Your task to perform on an android device: turn off location Image 0: 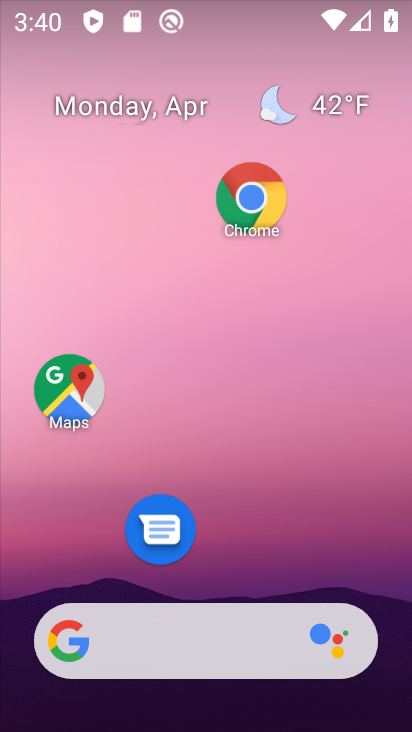
Step 0: drag from (233, 563) to (207, 162)
Your task to perform on an android device: turn off location Image 1: 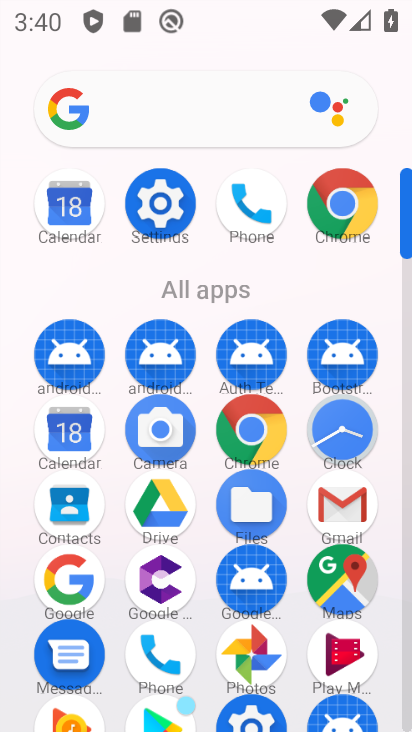
Step 1: click (138, 204)
Your task to perform on an android device: turn off location Image 2: 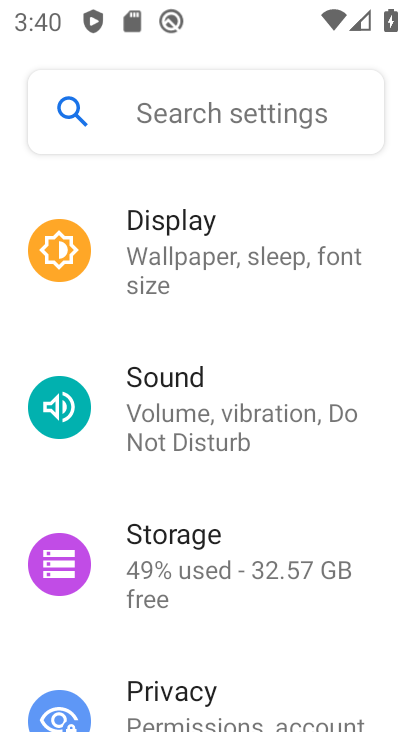
Step 2: drag from (251, 509) to (256, 259)
Your task to perform on an android device: turn off location Image 3: 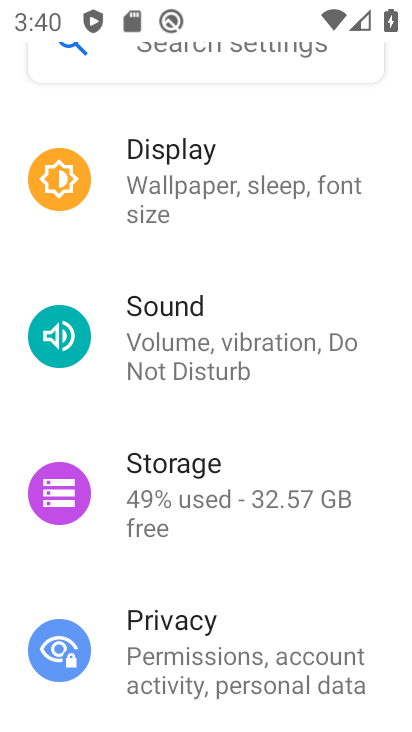
Step 3: drag from (253, 566) to (246, 284)
Your task to perform on an android device: turn off location Image 4: 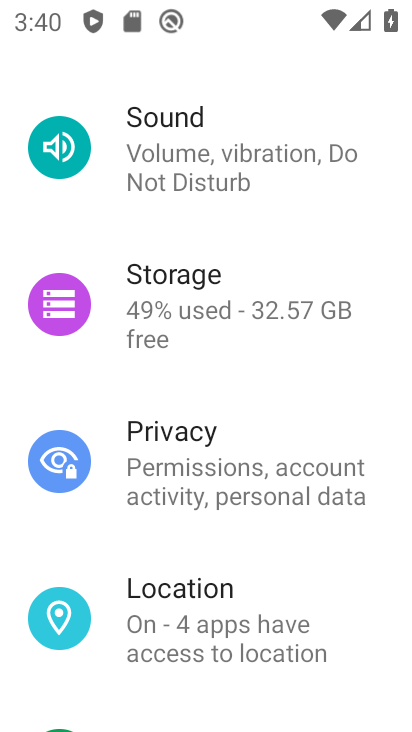
Step 4: drag from (245, 483) to (242, 327)
Your task to perform on an android device: turn off location Image 5: 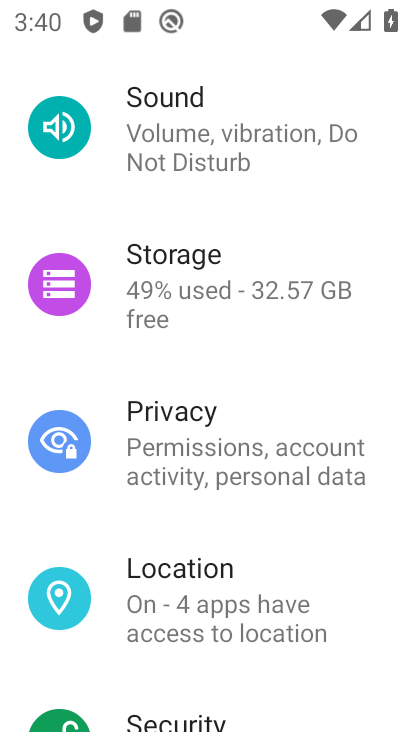
Step 5: click (235, 586)
Your task to perform on an android device: turn off location Image 6: 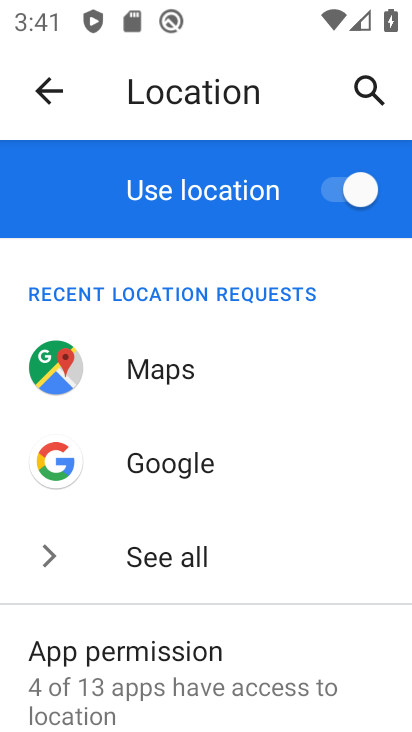
Step 6: click (336, 189)
Your task to perform on an android device: turn off location Image 7: 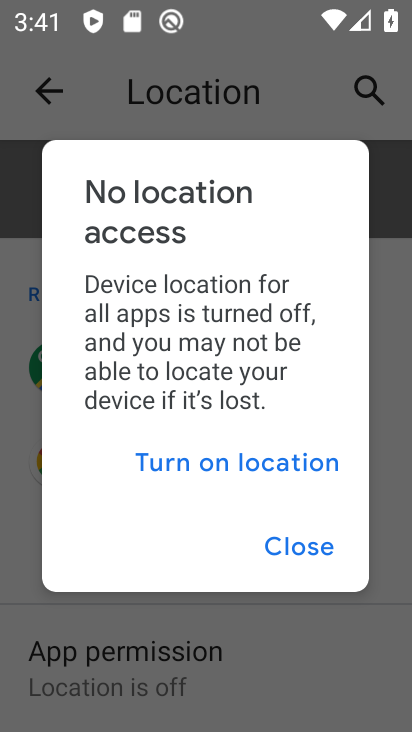
Step 7: task complete